Your task to perform on an android device: open app "YouTube Kids" (install if not already installed) Image 0: 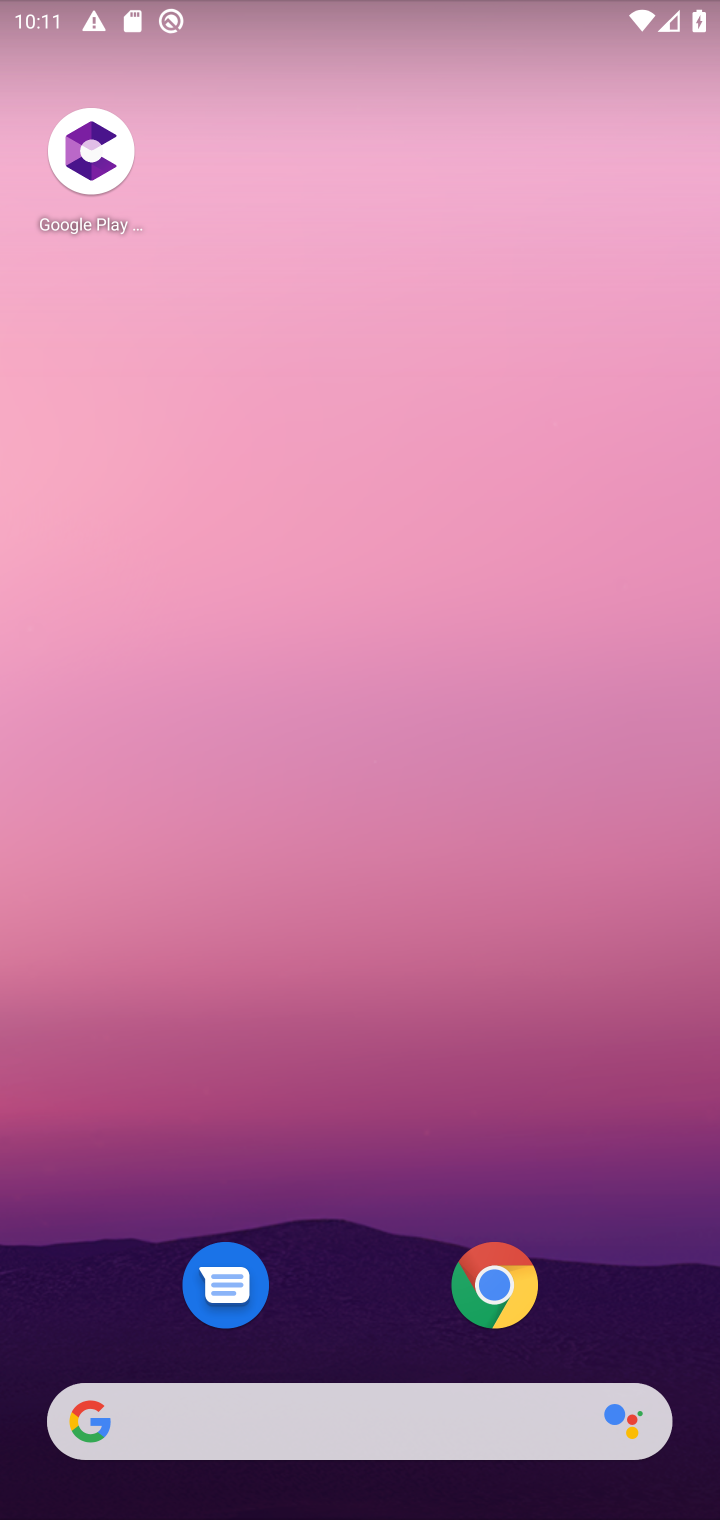
Step 0: drag from (223, 1442) to (399, 37)
Your task to perform on an android device: open app "YouTube Kids" (install if not already installed) Image 1: 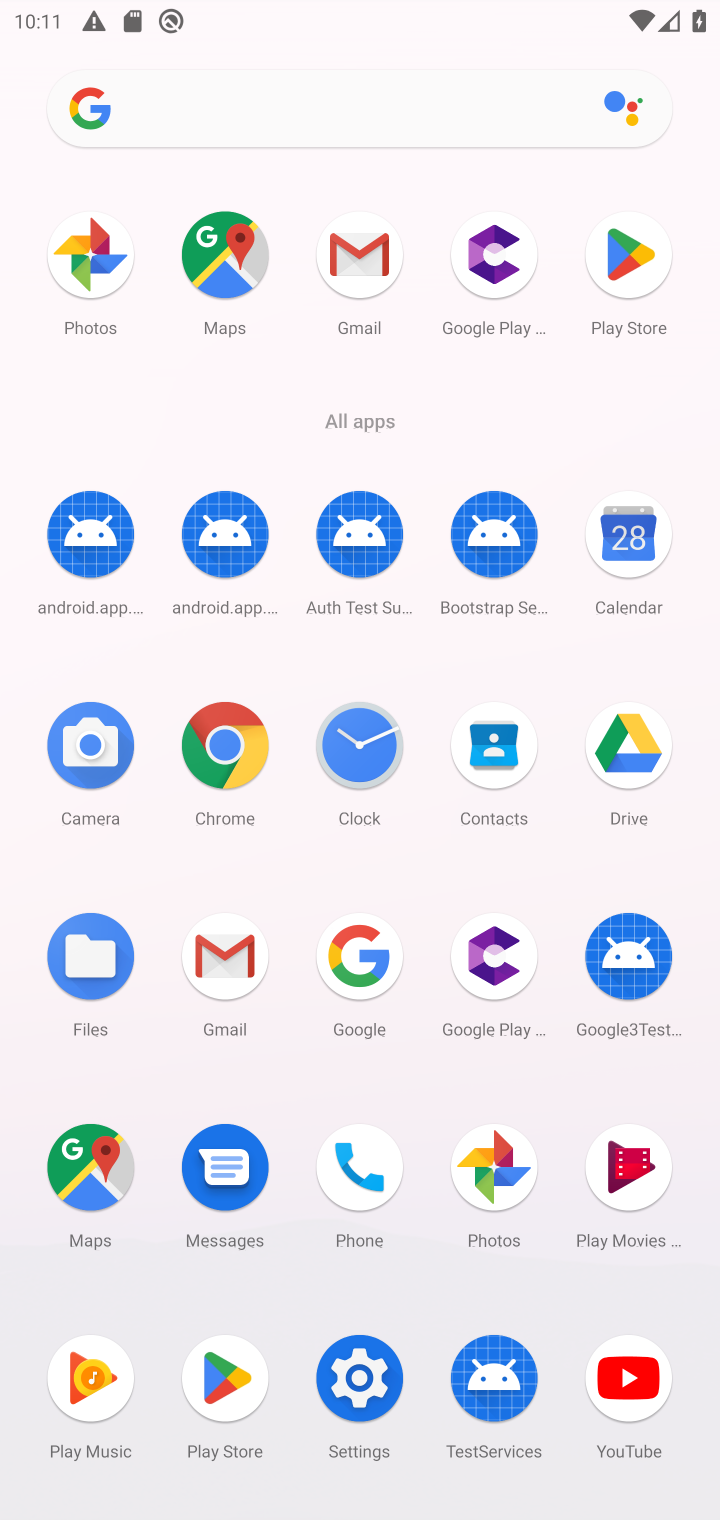
Step 1: click (626, 270)
Your task to perform on an android device: open app "YouTube Kids" (install if not already installed) Image 2: 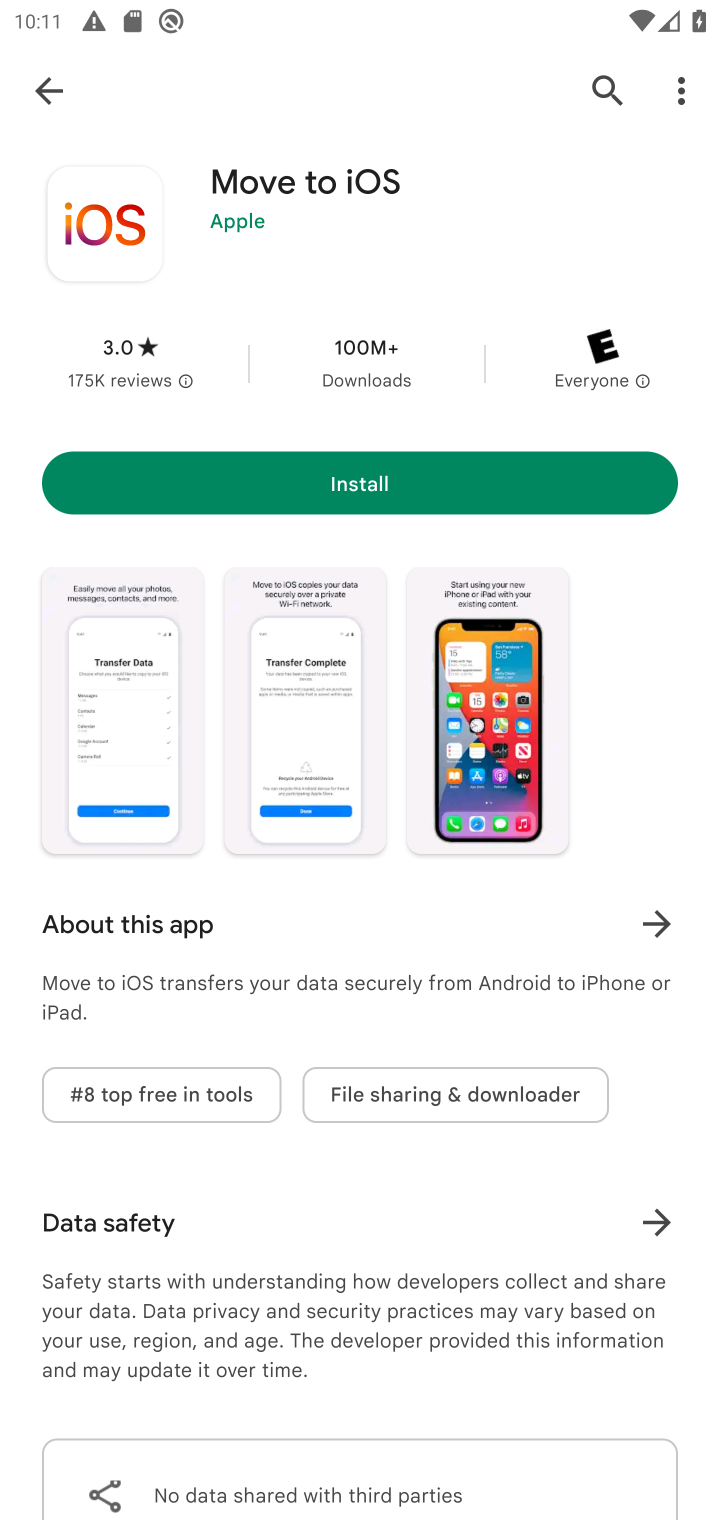
Step 2: click (598, 73)
Your task to perform on an android device: open app "YouTube Kids" (install if not already installed) Image 3: 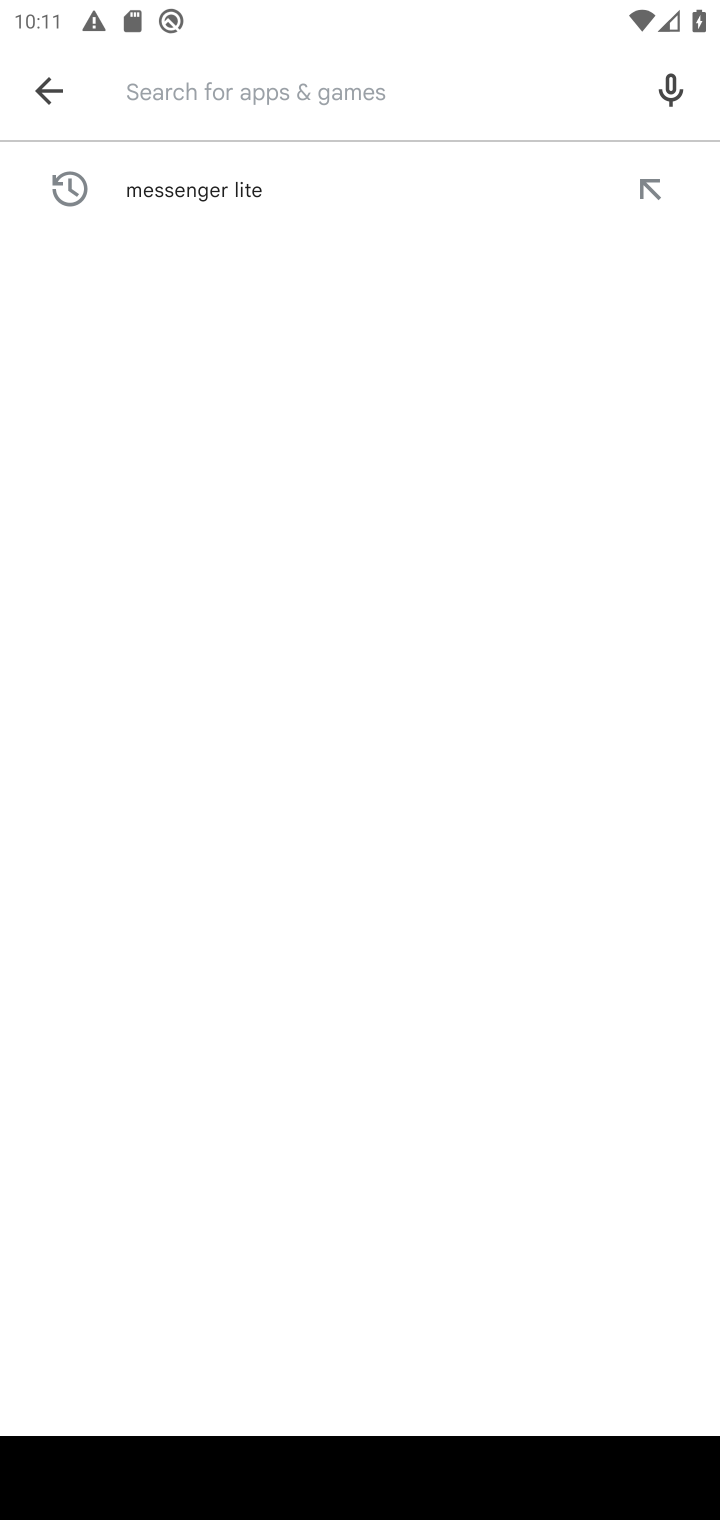
Step 3: type "YouTube Kids"
Your task to perform on an android device: open app "YouTube Kids" (install if not already installed) Image 4: 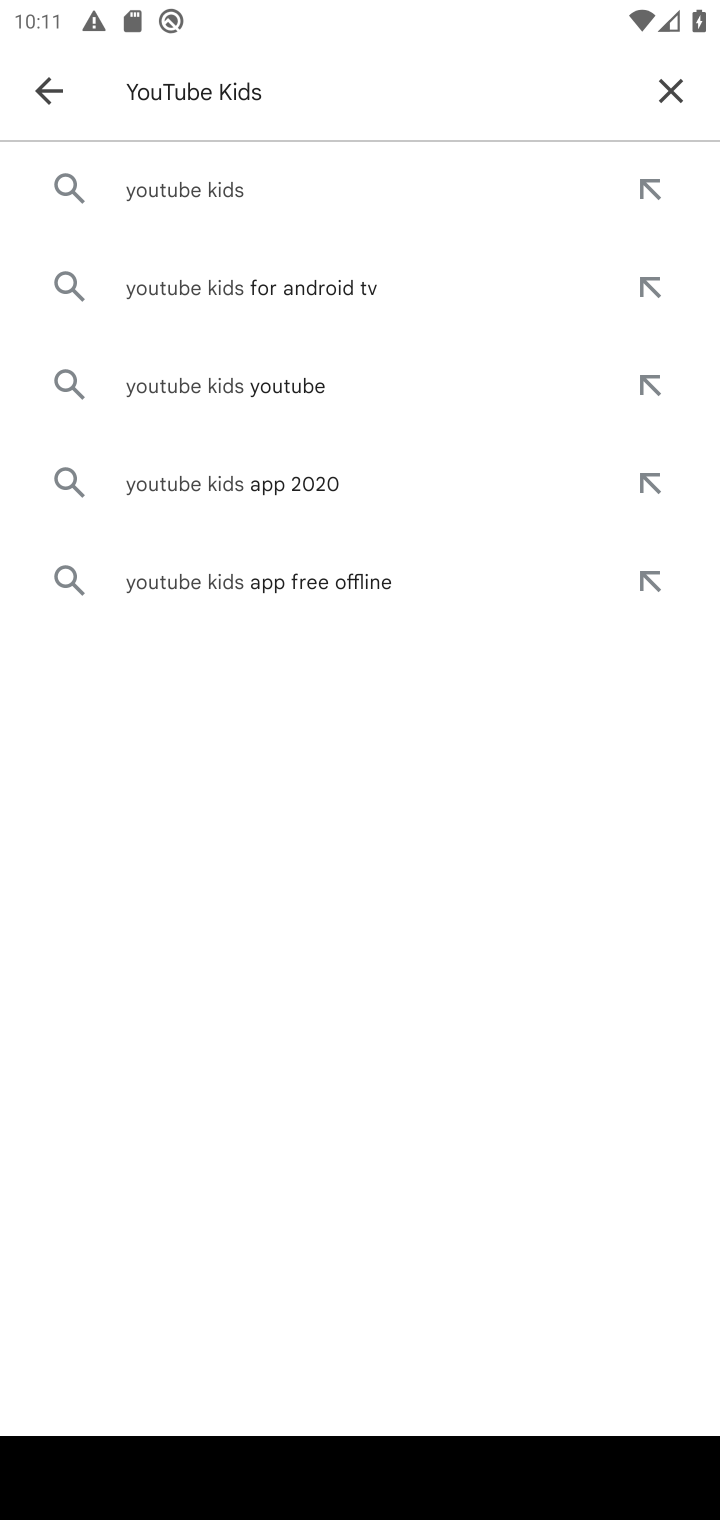
Step 4: click (184, 190)
Your task to perform on an android device: open app "YouTube Kids" (install if not already installed) Image 5: 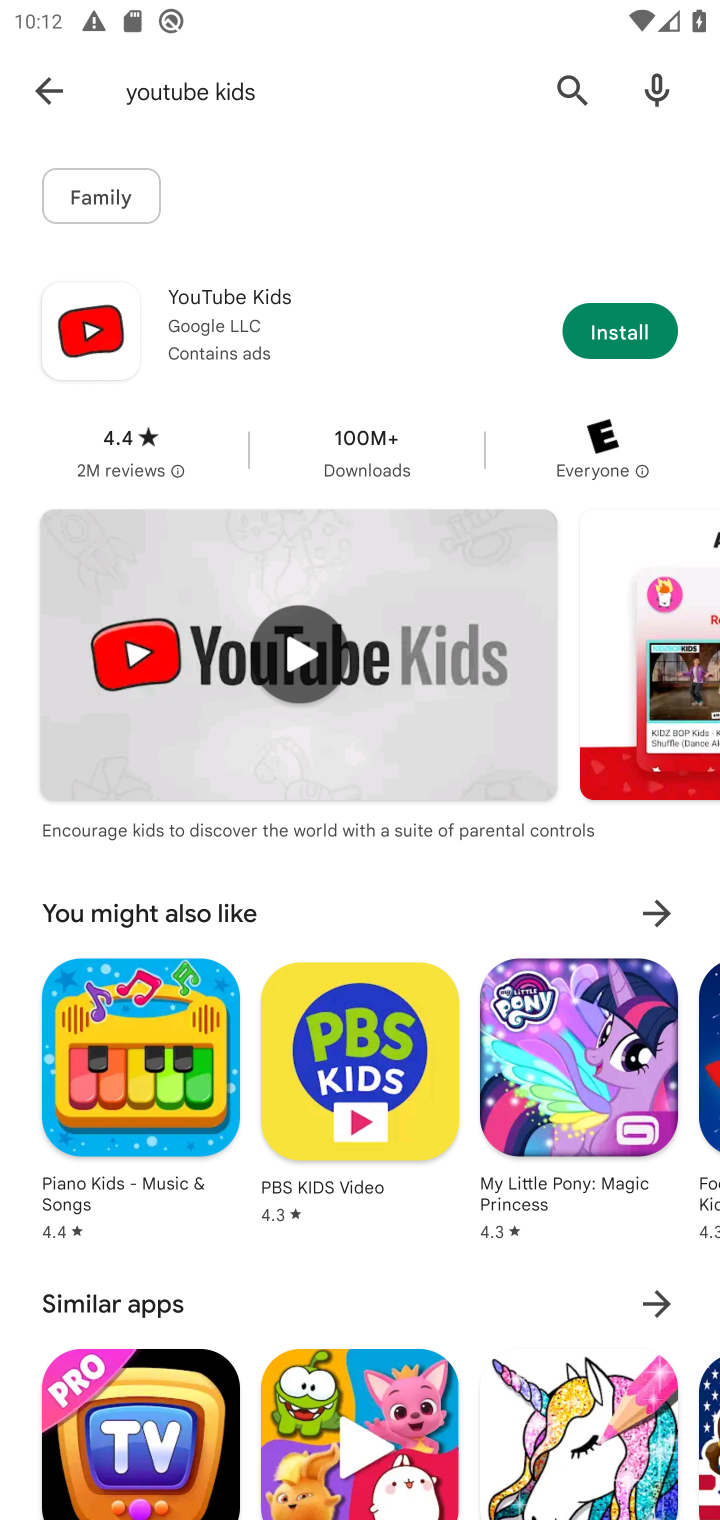
Step 5: click (629, 342)
Your task to perform on an android device: open app "YouTube Kids" (install if not already installed) Image 6: 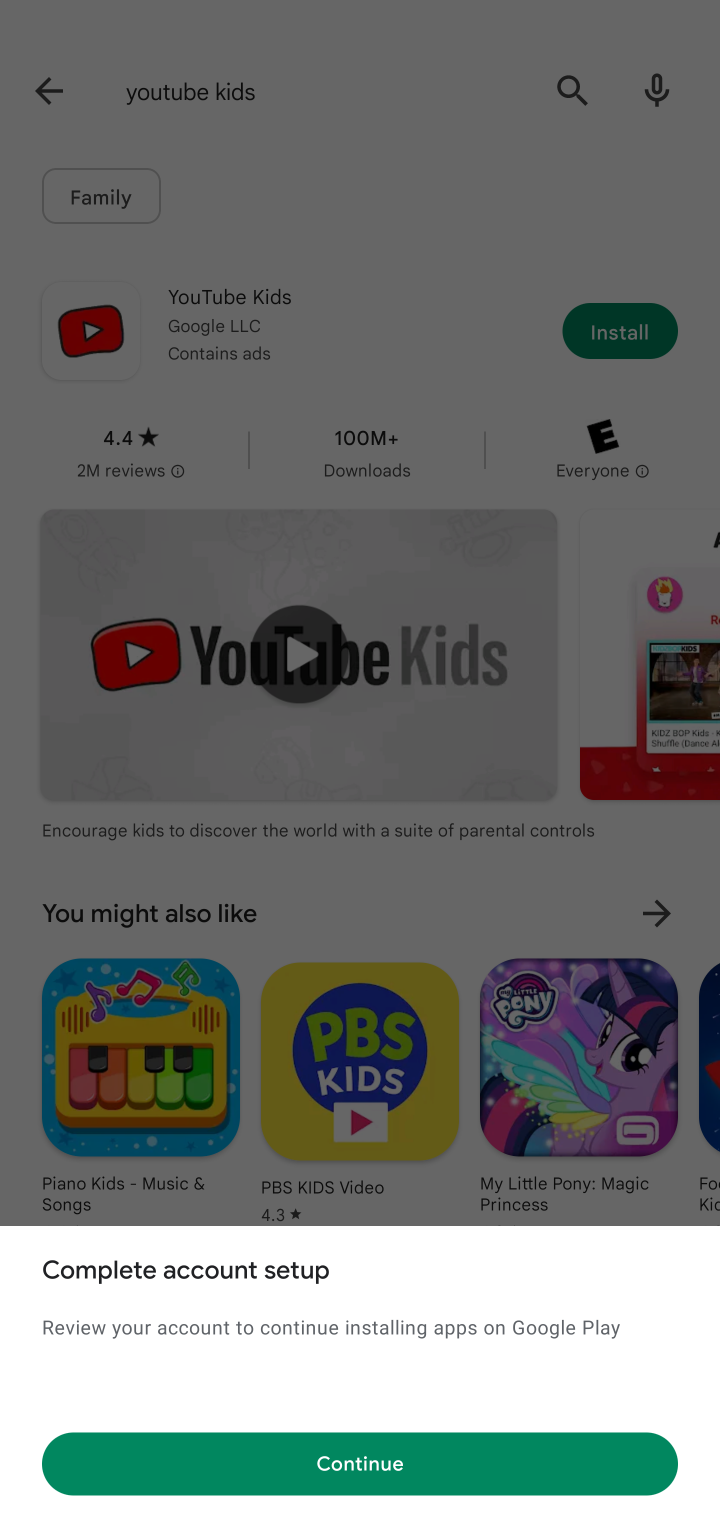
Step 6: click (350, 1477)
Your task to perform on an android device: open app "YouTube Kids" (install if not already installed) Image 7: 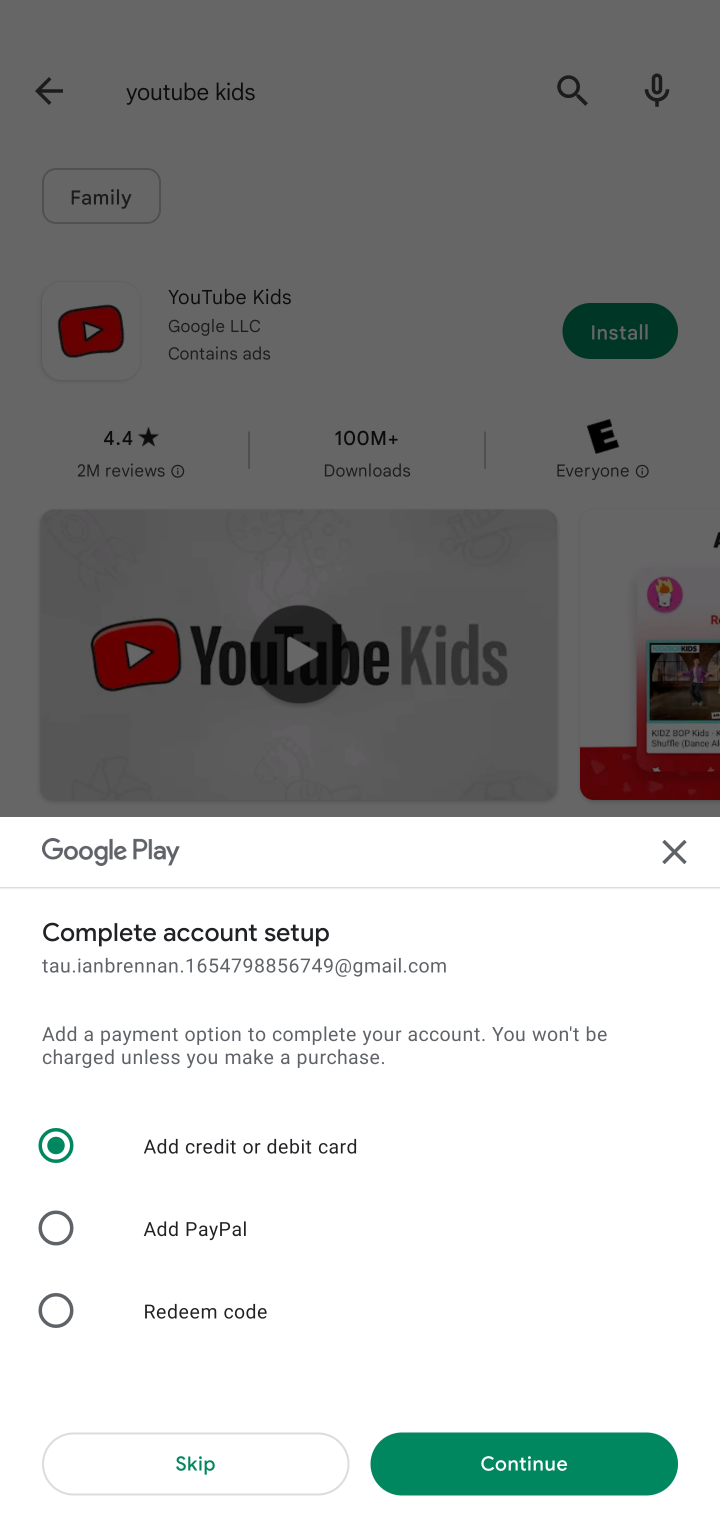
Step 7: click (211, 1466)
Your task to perform on an android device: open app "YouTube Kids" (install if not already installed) Image 8: 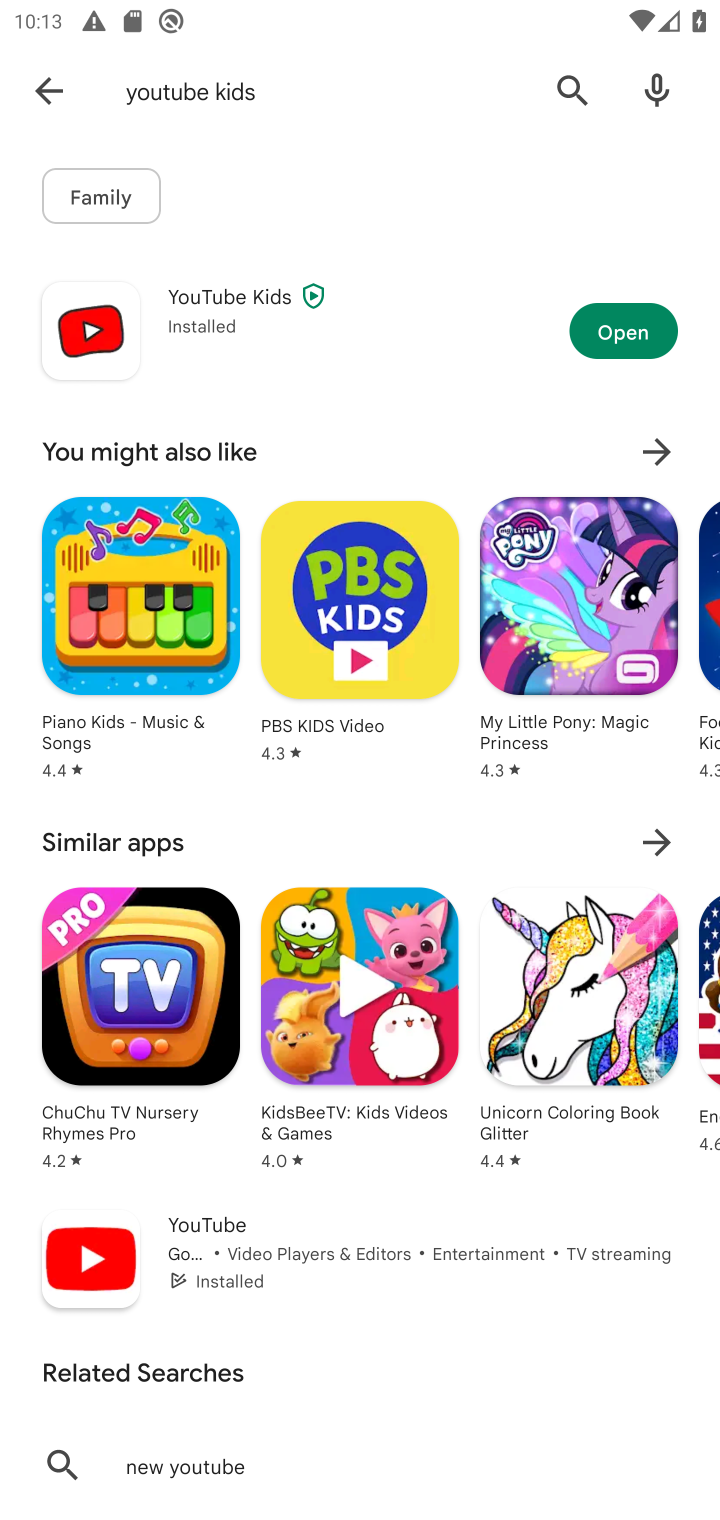
Step 8: click (619, 345)
Your task to perform on an android device: open app "YouTube Kids" (install if not already installed) Image 9: 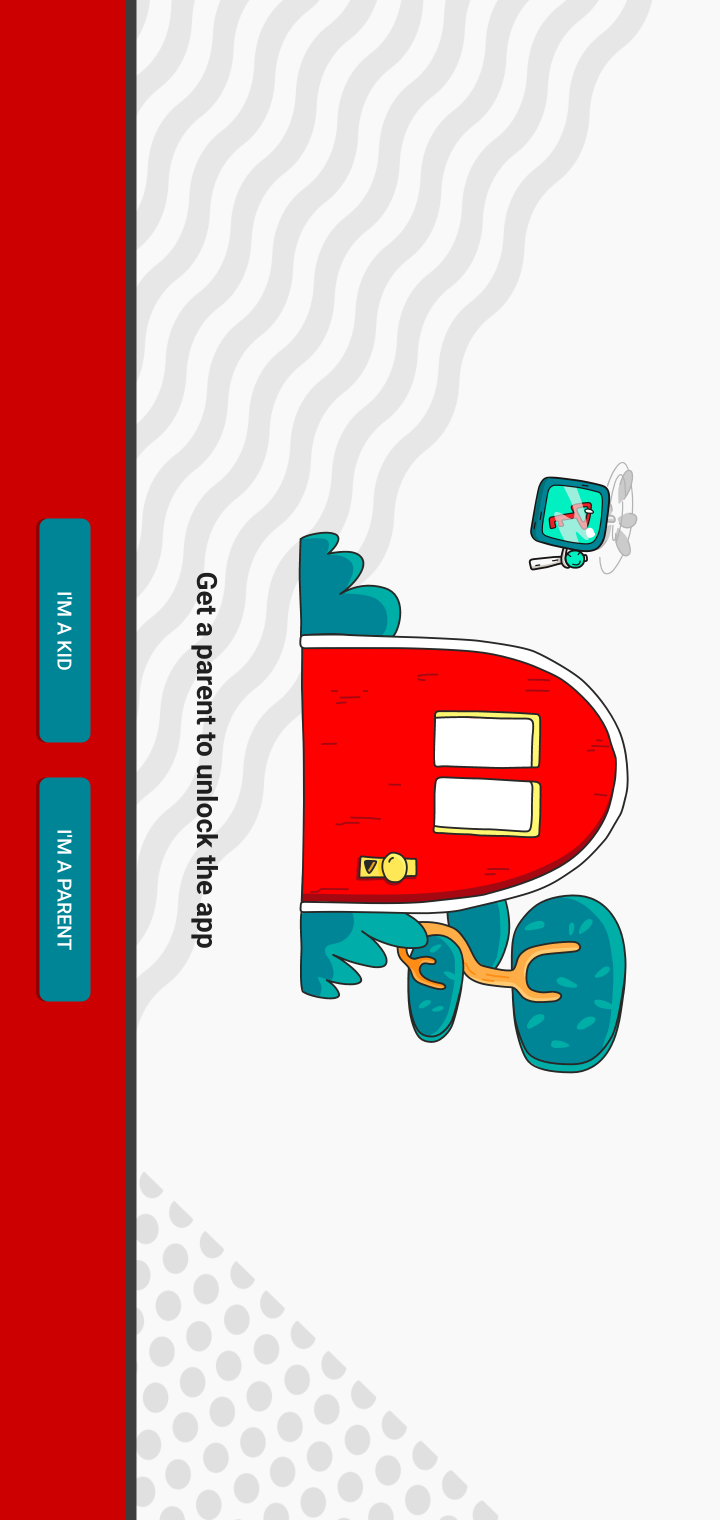
Step 9: task complete